Your task to perform on an android device: When is my next appointment? Image 0: 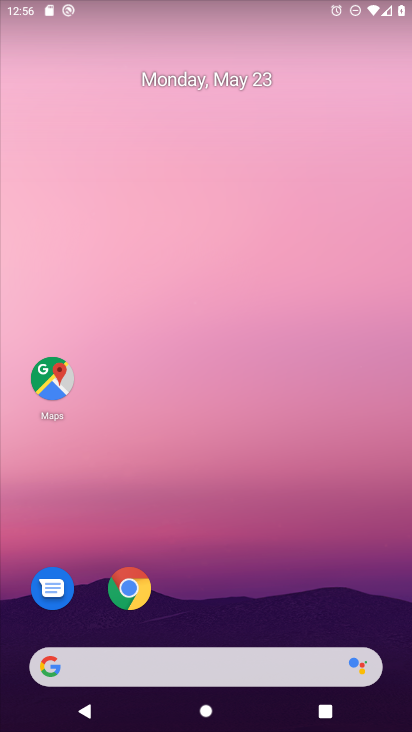
Step 0: drag from (256, 665) to (276, 171)
Your task to perform on an android device: When is my next appointment? Image 1: 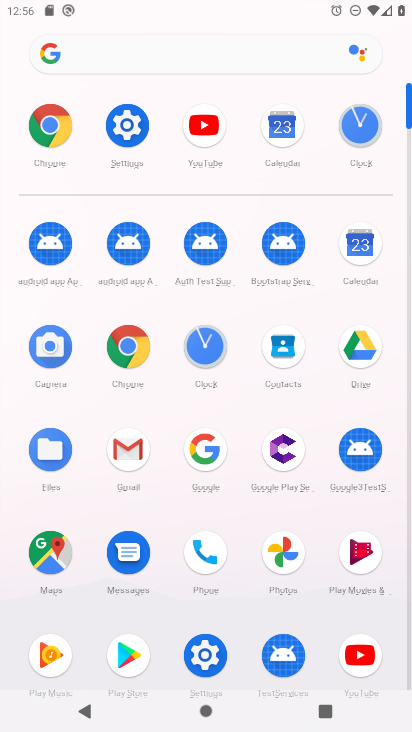
Step 1: click (363, 238)
Your task to perform on an android device: When is my next appointment? Image 2: 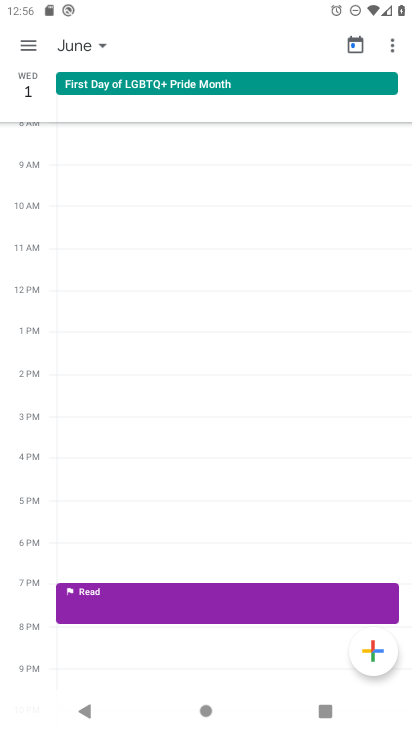
Step 2: click (39, 38)
Your task to perform on an android device: When is my next appointment? Image 3: 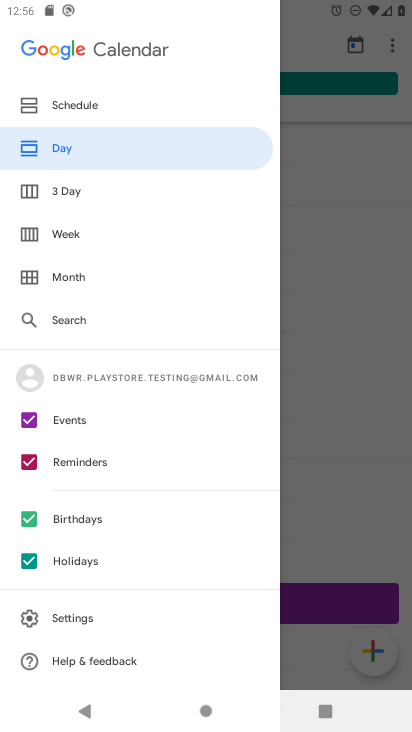
Step 3: click (78, 274)
Your task to perform on an android device: When is my next appointment? Image 4: 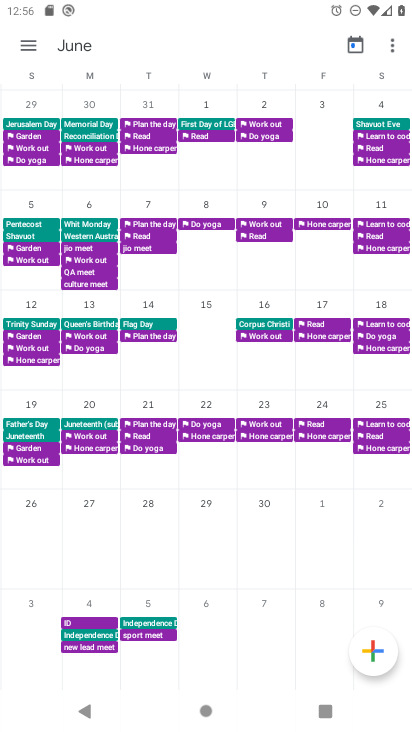
Step 4: drag from (51, 376) to (411, 384)
Your task to perform on an android device: When is my next appointment? Image 5: 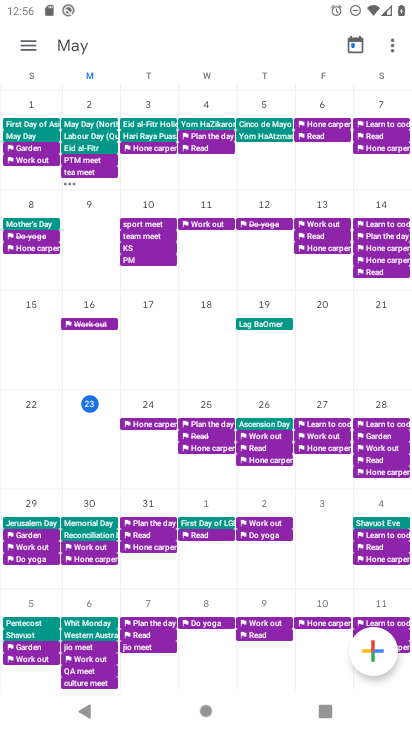
Step 5: click (42, 49)
Your task to perform on an android device: When is my next appointment? Image 6: 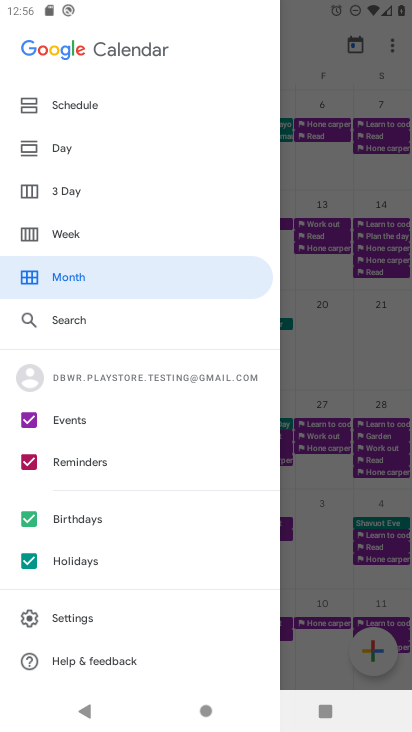
Step 6: click (69, 116)
Your task to perform on an android device: When is my next appointment? Image 7: 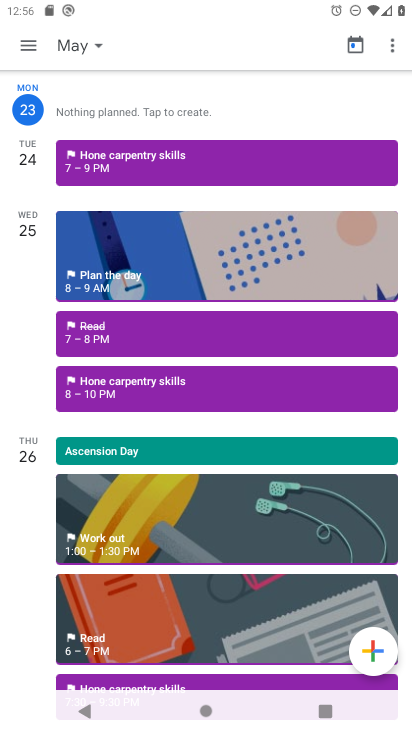
Step 7: task complete